Your task to perform on an android device: Open settings Image 0: 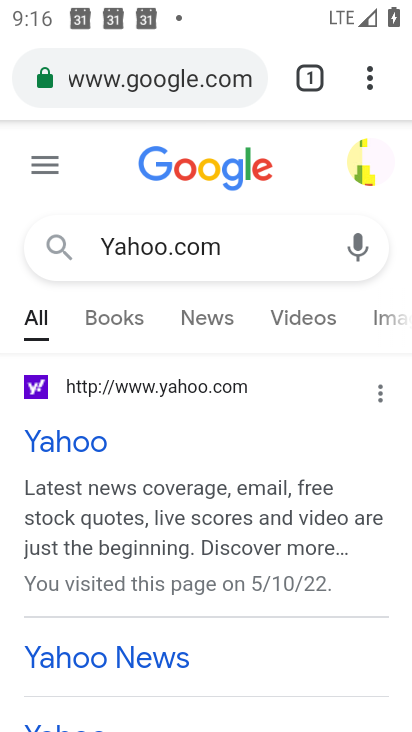
Step 0: press back button
Your task to perform on an android device: Open settings Image 1: 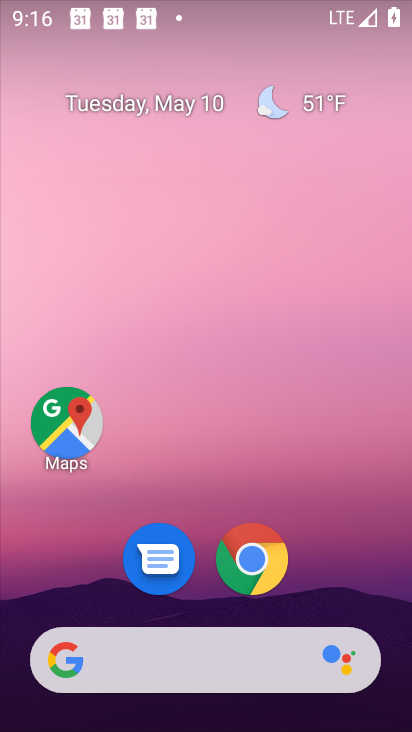
Step 1: drag from (316, 550) to (317, 80)
Your task to perform on an android device: Open settings Image 2: 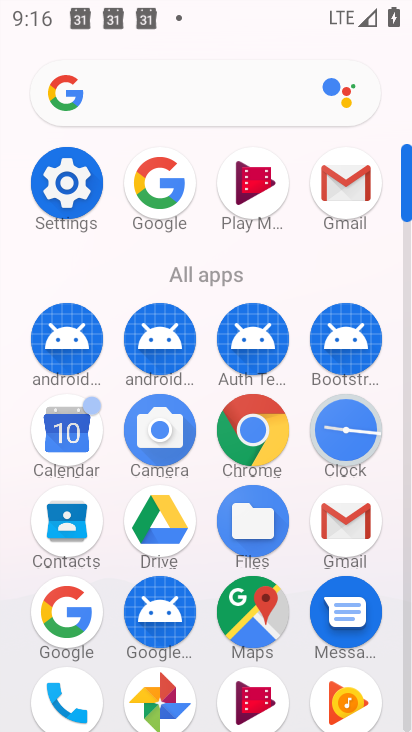
Step 2: click (66, 182)
Your task to perform on an android device: Open settings Image 3: 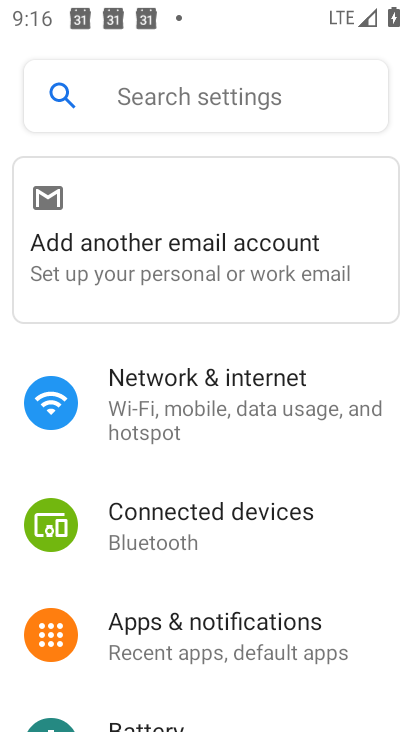
Step 3: task complete